Your task to perform on an android device: change timer sound Image 0: 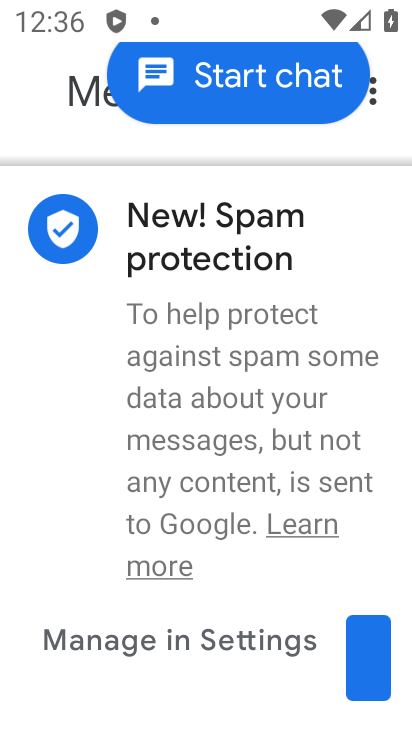
Step 0: press home button
Your task to perform on an android device: change timer sound Image 1: 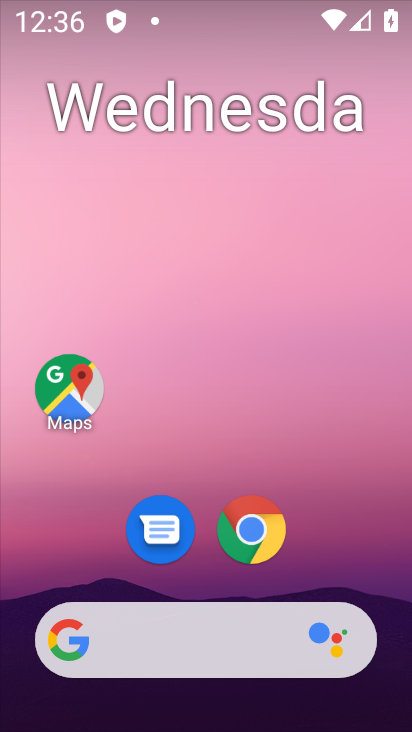
Step 1: drag from (207, 714) to (215, 139)
Your task to perform on an android device: change timer sound Image 2: 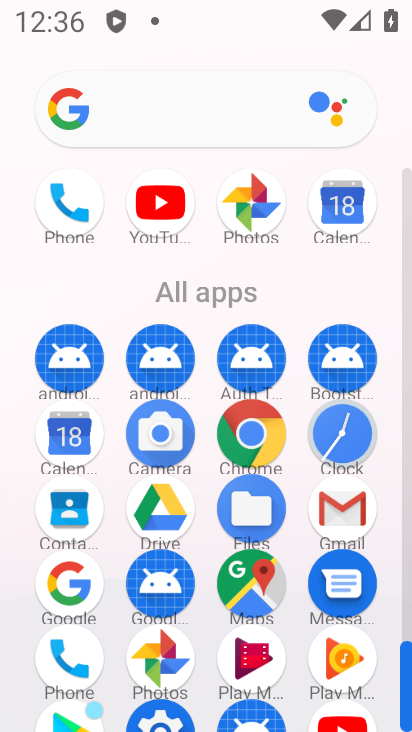
Step 2: click (330, 434)
Your task to perform on an android device: change timer sound Image 3: 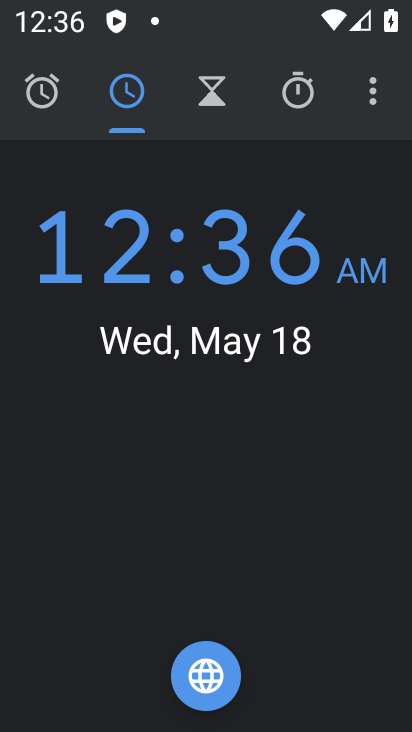
Step 3: click (374, 98)
Your task to perform on an android device: change timer sound Image 4: 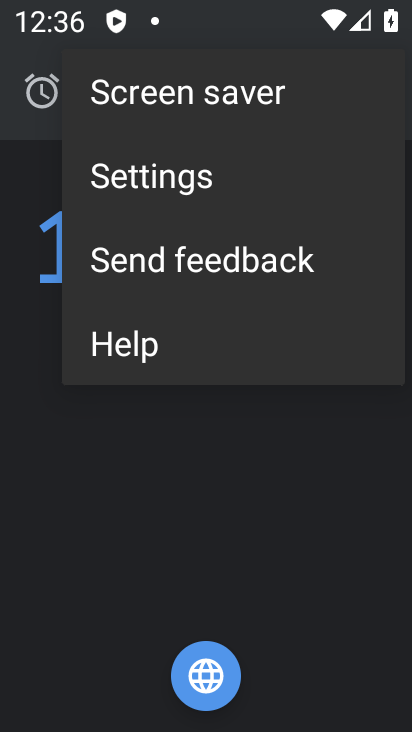
Step 4: click (160, 171)
Your task to perform on an android device: change timer sound Image 5: 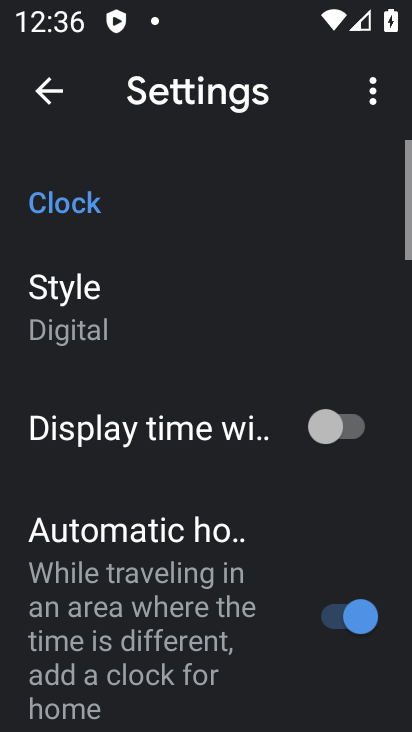
Step 5: drag from (151, 671) to (148, 261)
Your task to perform on an android device: change timer sound Image 6: 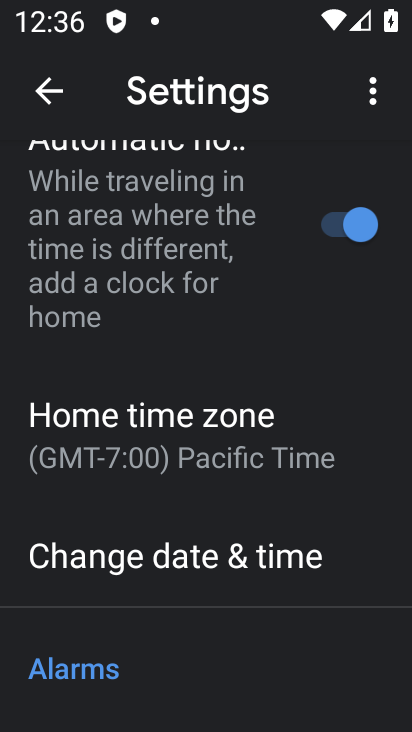
Step 6: drag from (143, 604) to (149, 230)
Your task to perform on an android device: change timer sound Image 7: 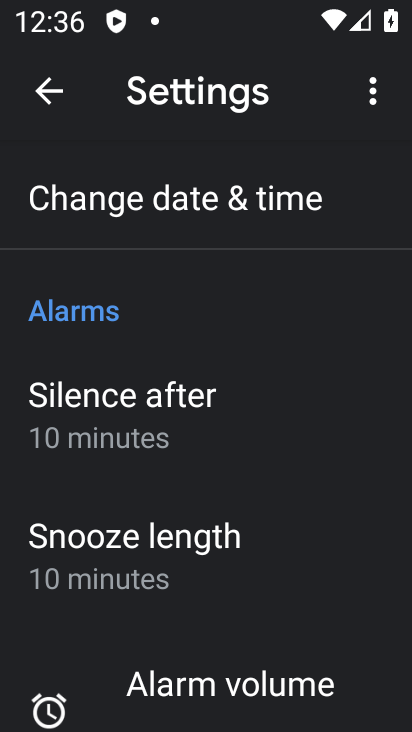
Step 7: drag from (191, 626) to (195, 234)
Your task to perform on an android device: change timer sound Image 8: 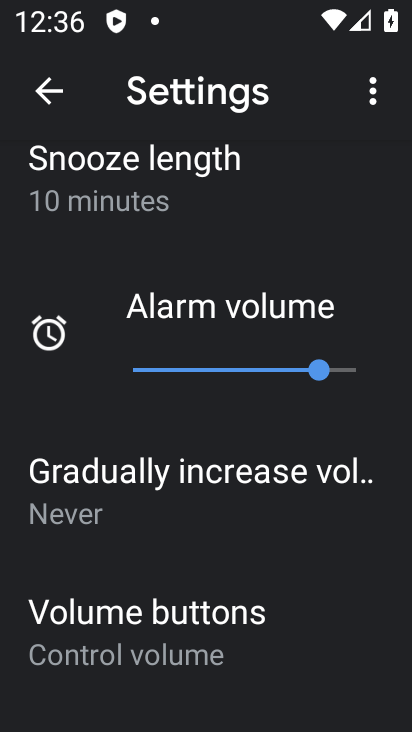
Step 8: drag from (206, 581) to (196, 225)
Your task to perform on an android device: change timer sound Image 9: 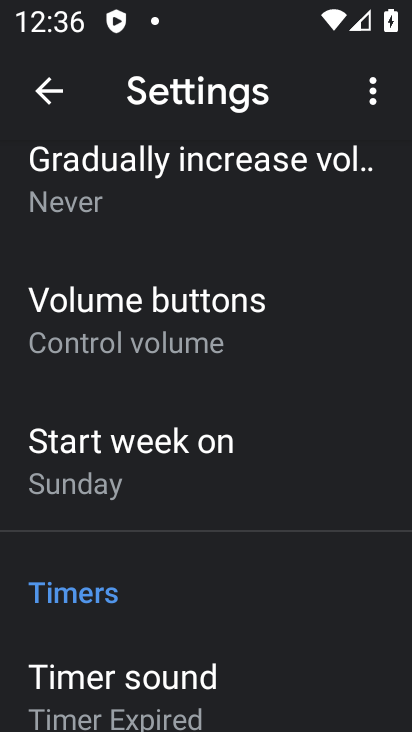
Step 9: click (187, 669)
Your task to perform on an android device: change timer sound Image 10: 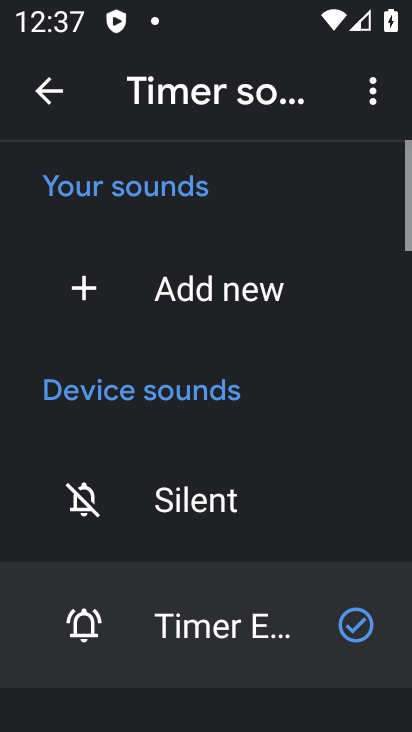
Step 10: drag from (188, 586) to (187, 225)
Your task to perform on an android device: change timer sound Image 11: 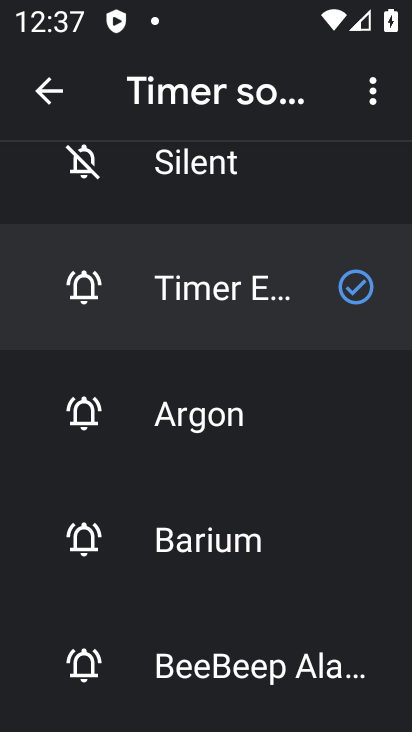
Step 11: click (211, 655)
Your task to perform on an android device: change timer sound Image 12: 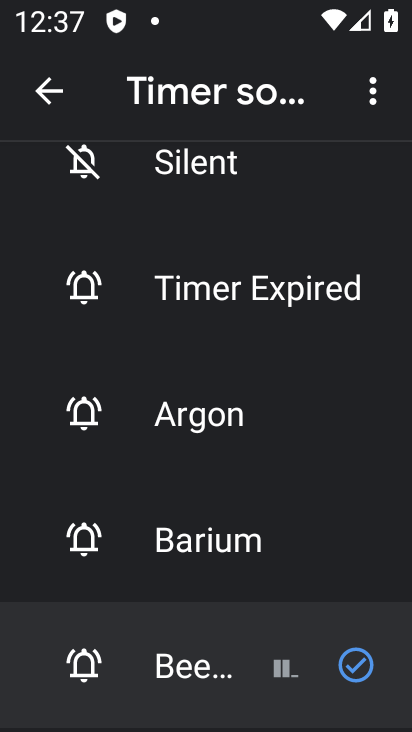
Step 12: task complete